Your task to perform on an android device: Open settings on Google Maps Image 0: 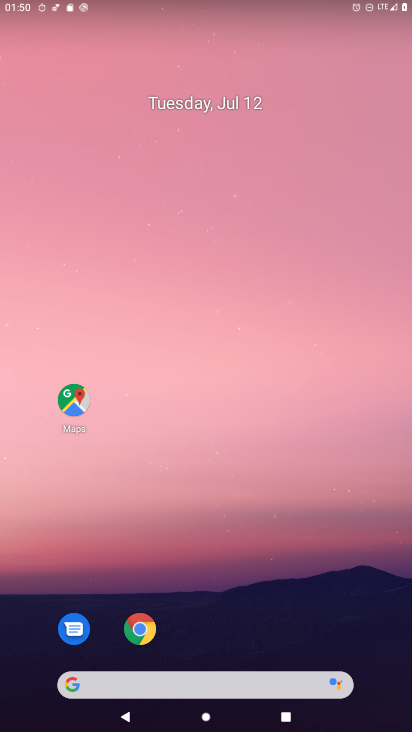
Step 0: click (76, 406)
Your task to perform on an android device: Open settings on Google Maps Image 1: 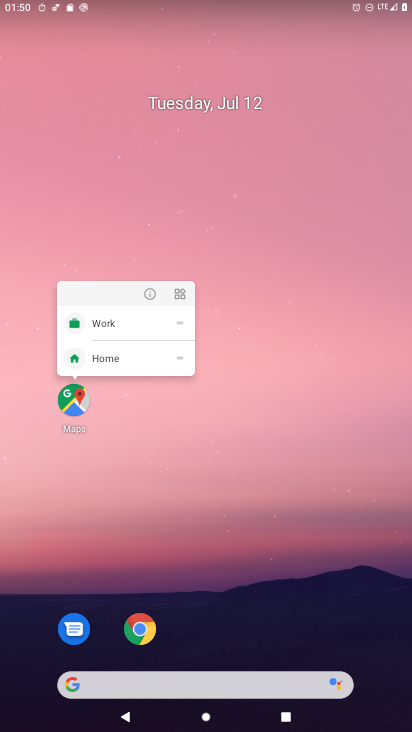
Step 1: click (52, 402)
Your task to perform on an android device: Open settings on Google Maps Image 2: 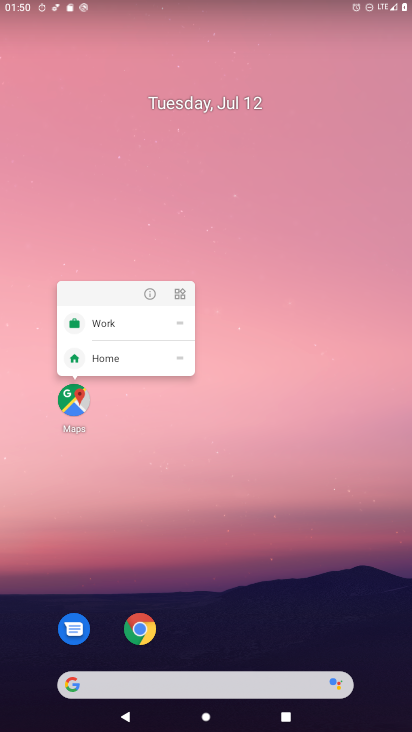
Step 2: click (76, 418)
Your task to perform on an android device: Open settings on Google Maps Image 3: 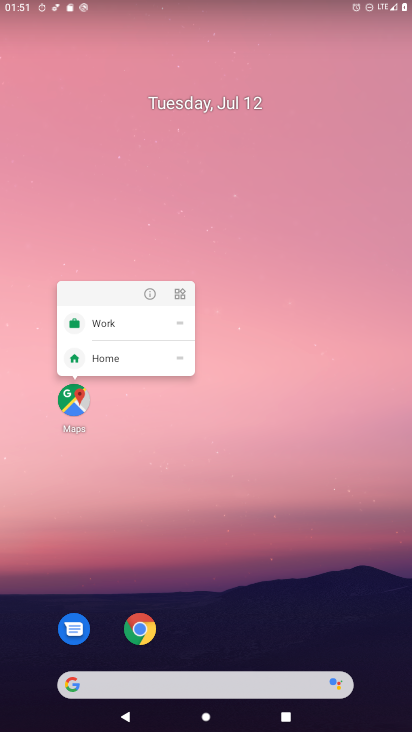
Step 3: task complete